Your task to perform on an android device: set the stopwatch Image 0: 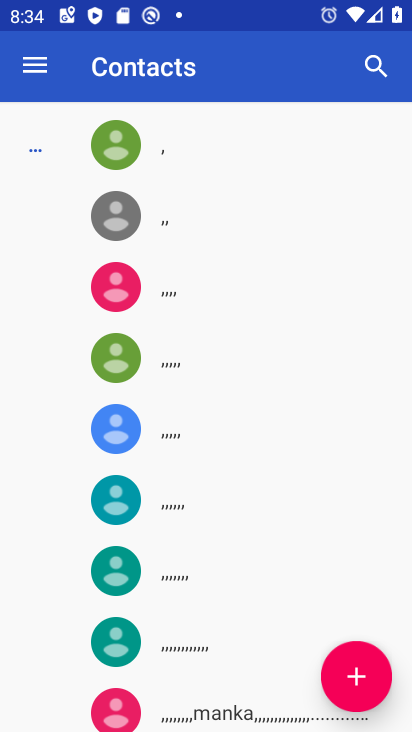
Step 0: press home button
Your task to perform on an android device: set the stopwatch Image 1: 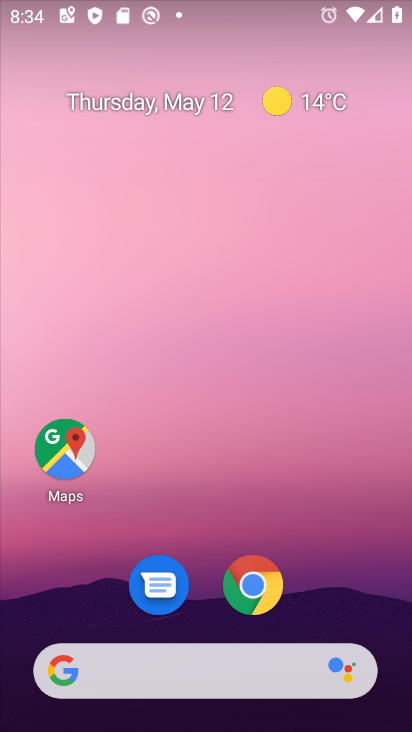
Step 1: drag from (266, 484) to (182, 40)
Your task to perform on an android device: set the stopwatch Image 2: 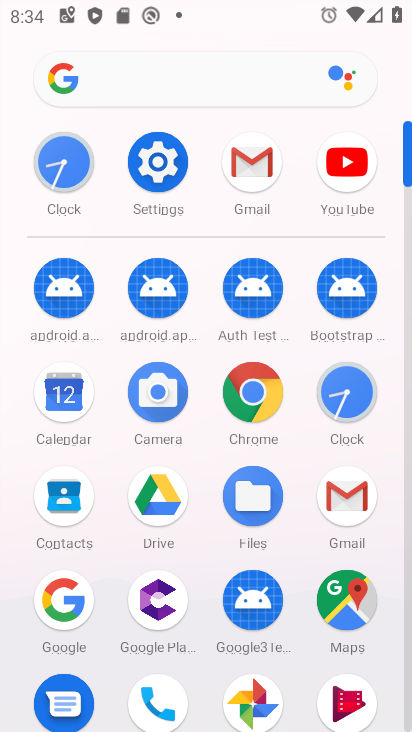
Step 2: click (71, 149)
Your task to perform on an android device: set the stopwatch Image 3: 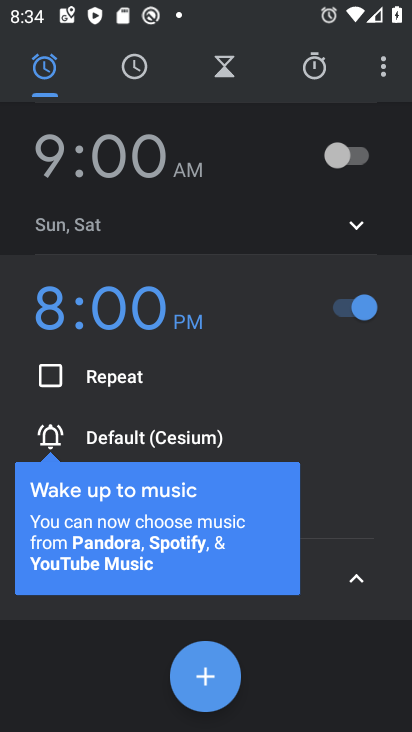
Step 3: click (316, 68)
Your task to perform on an android device: set the stopwatch Image 4: 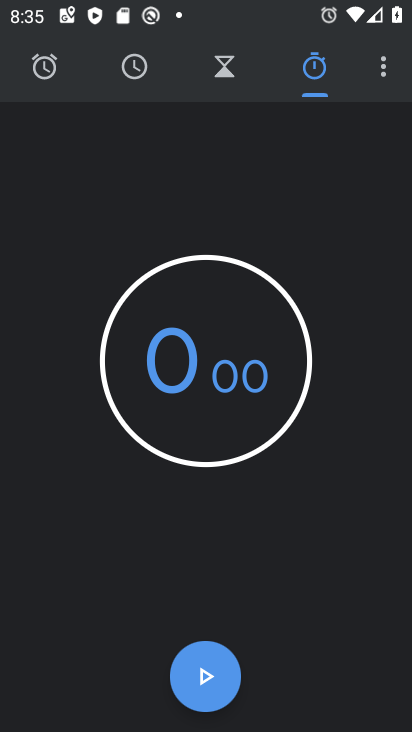
Step 4: task complete